Your task to perform on an android device: Play the last video I watched on Youtube Image 0: 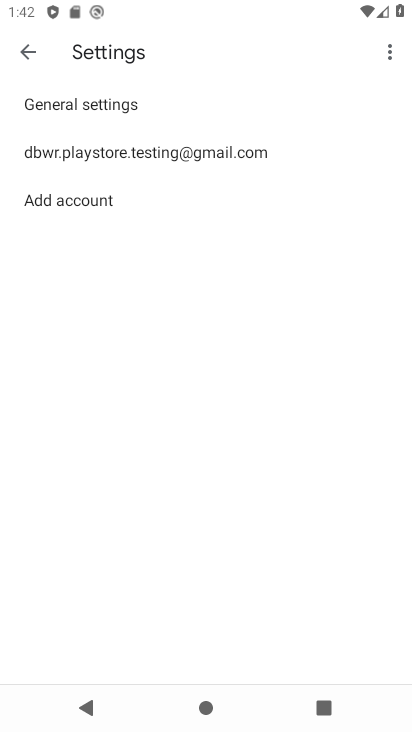
Step 0: press home button
Your task to perform on an android device: Play the last video I watched on Youtube Image 1: 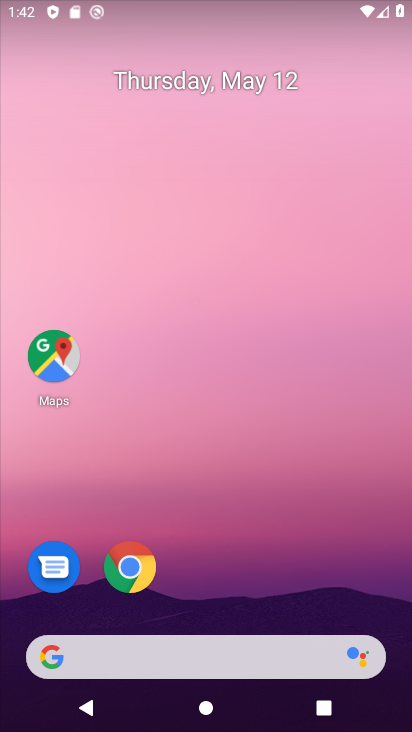
Step 1: drag from (176, 605) to (146, 240)
Your task to perform on an android device: Play the last video I watched on Youtube Image 2: 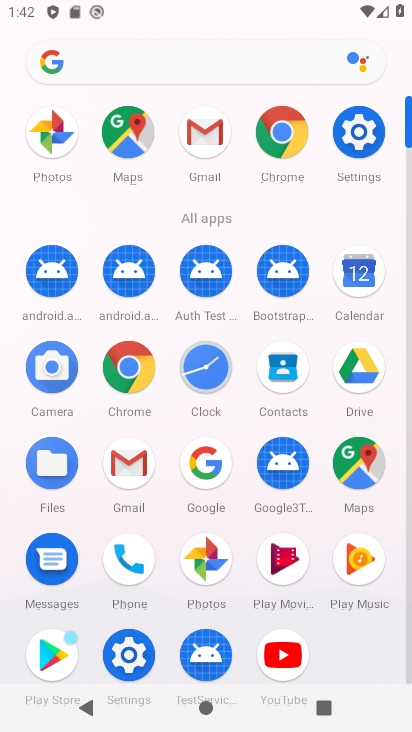
Step 2: click (290, 651)
Your task to perform on an android device: Play the last video I watched on Youtube Image 3: 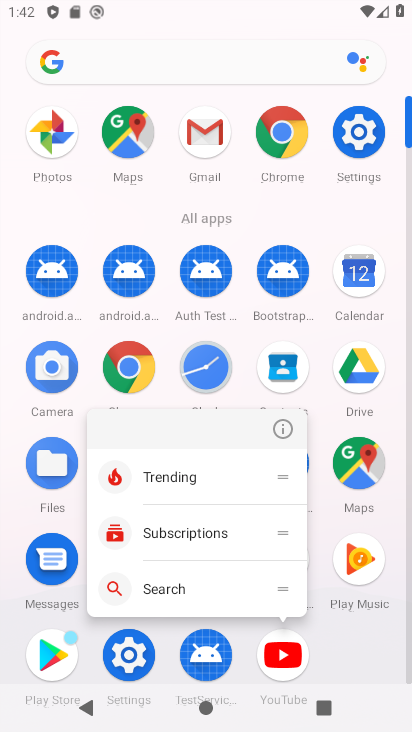
Step 3: click (291, 658)
Your task to perform on an android device: Play the last video I watched on Youtube Image 4: 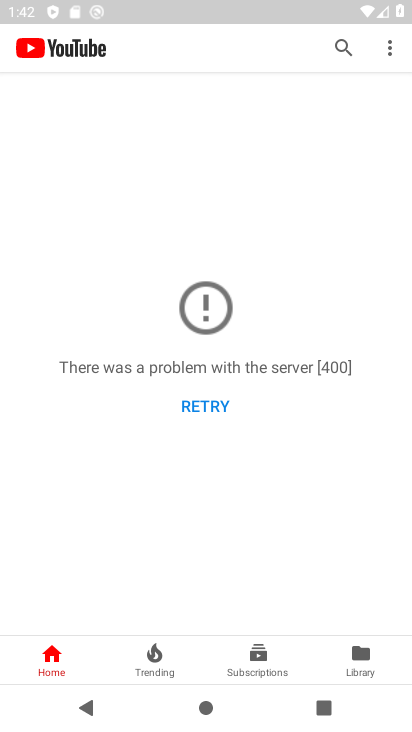
Step 4: click (359, 660)
Your task to perform on an android device: Play the last video I watched on Youtube Image 5: 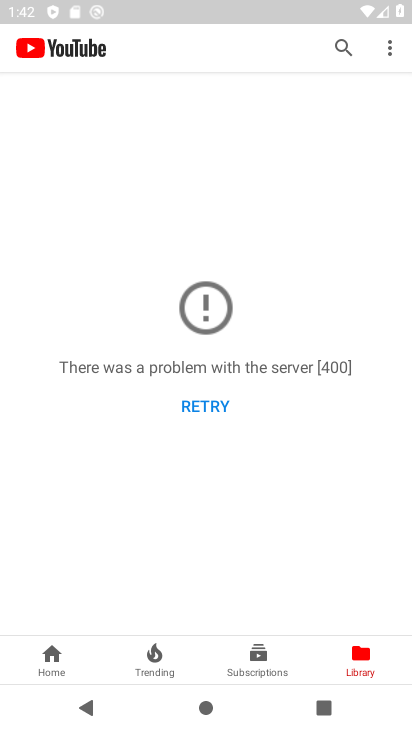
Step 5: task complete